Your task to perform on an android device: remove spam from my inbox in the gmail app Image 0: 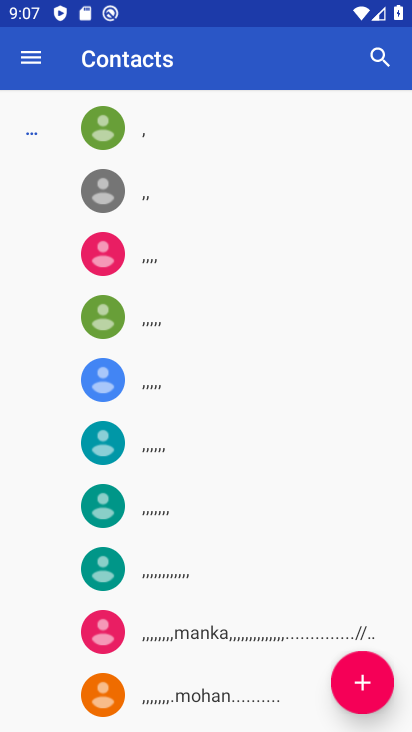
Step 0: press home button
Your task to perform on an android device: remove spam from my inbox in the gmail app Image 1: 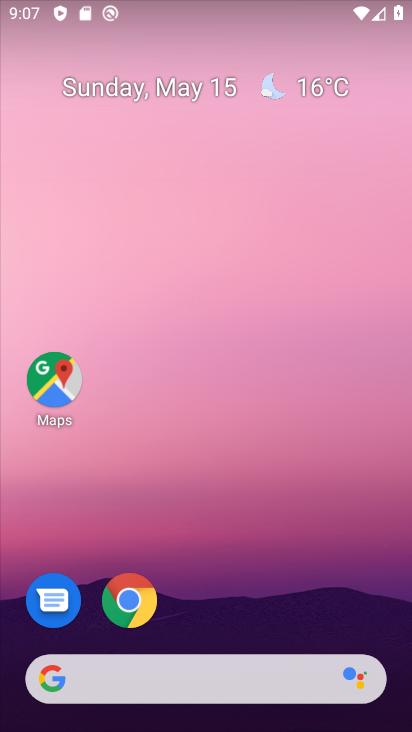
Step 1: drag from (255, 620) to (254, 259)
Your task to perform on an android device: remove spam from my inbox in the gmail app Image 2: 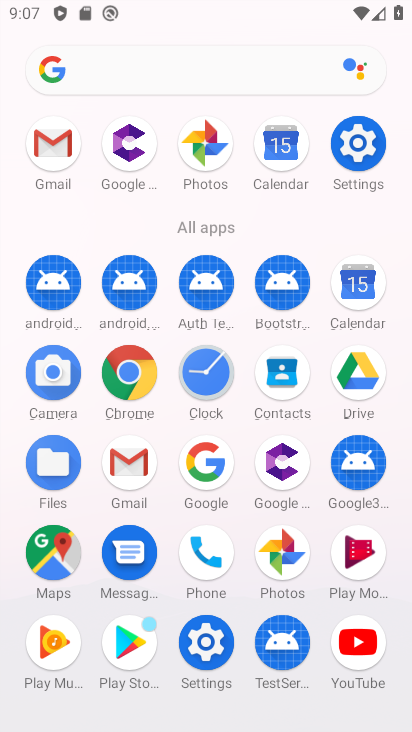
Step 2: click (125, 468)
Your task to perform on an android device: remove spam from my inbox in the gmail app Image 3: 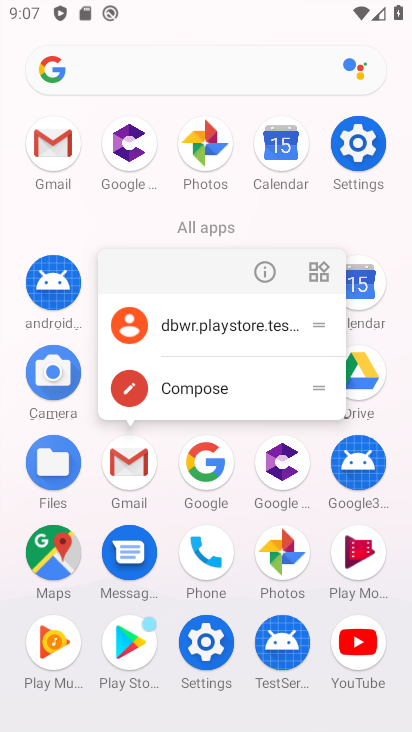
Step 3: click (138, 461)
Your task to perform on an android device: remove spam from my inbox in the gmail app Image 4: 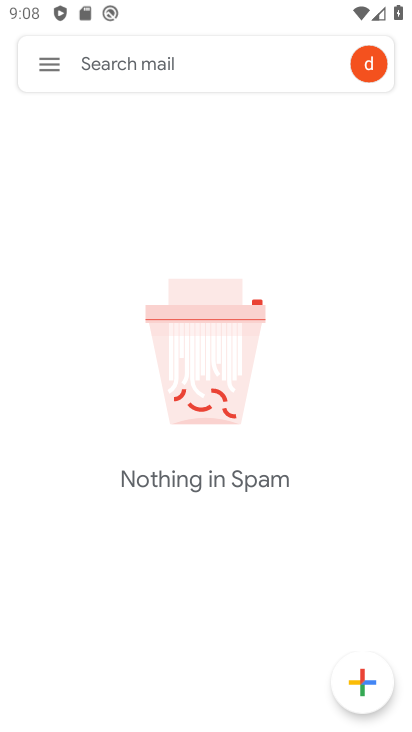
Step 4: task complete